Your task to perform on an android device: Go to accessibility settings Image 0: 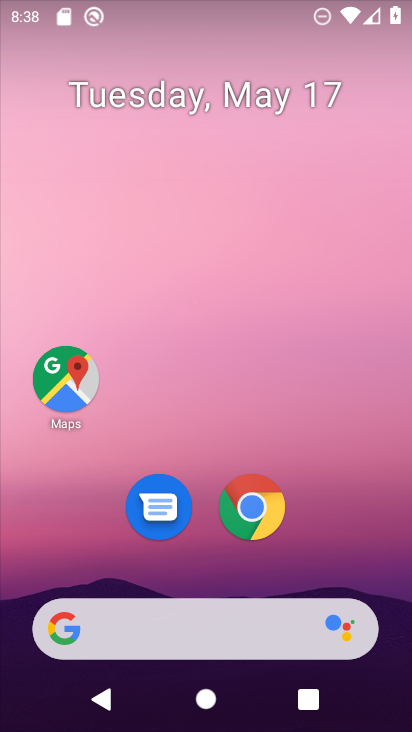
Step 0: drag from (390, 594) to (373, 10)
Your task to perform on an android device: Go to accessibility settings Image 1: 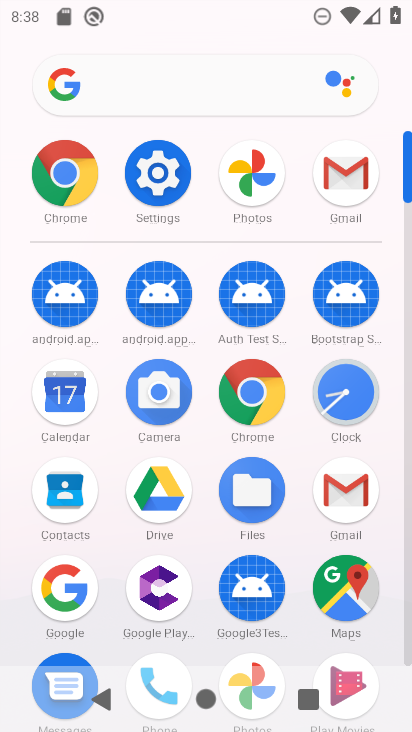
Step 1: click (157, 169)
Your task to perform on an android device: Go to accessibility settings Image 2: 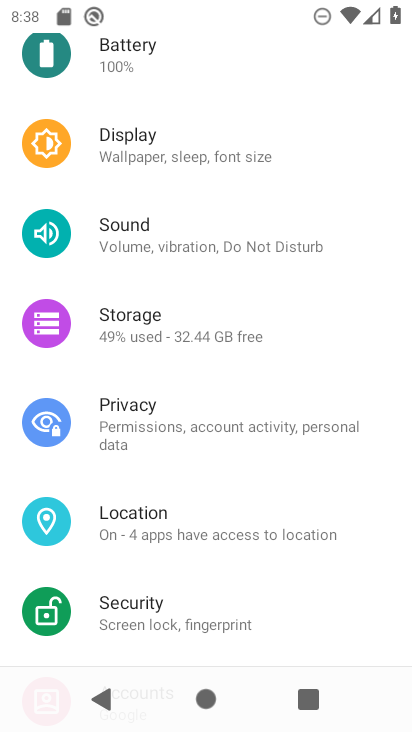
Step 2: drag from (373, 582) to (362, 130)
Your task to perform on an android device: Go to accessibility settings Image 3: 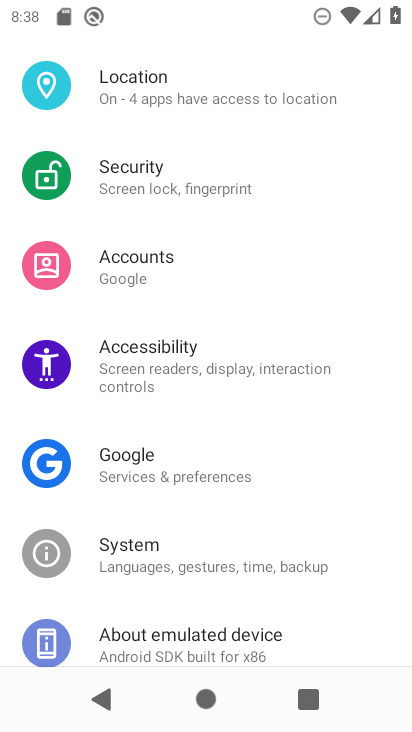
Step 3: click (138, 369)
Your task to perform on an android device: Go to accessibility settings Image 4: 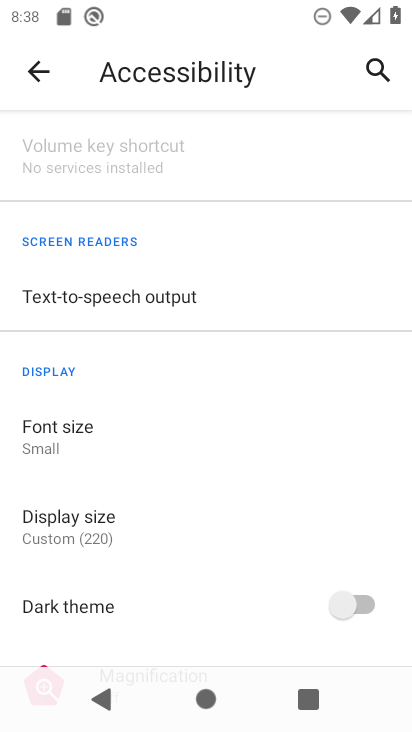
Step 4: task complete